Your task to perform on an android device: Open Chrome and go to settings Image 0: 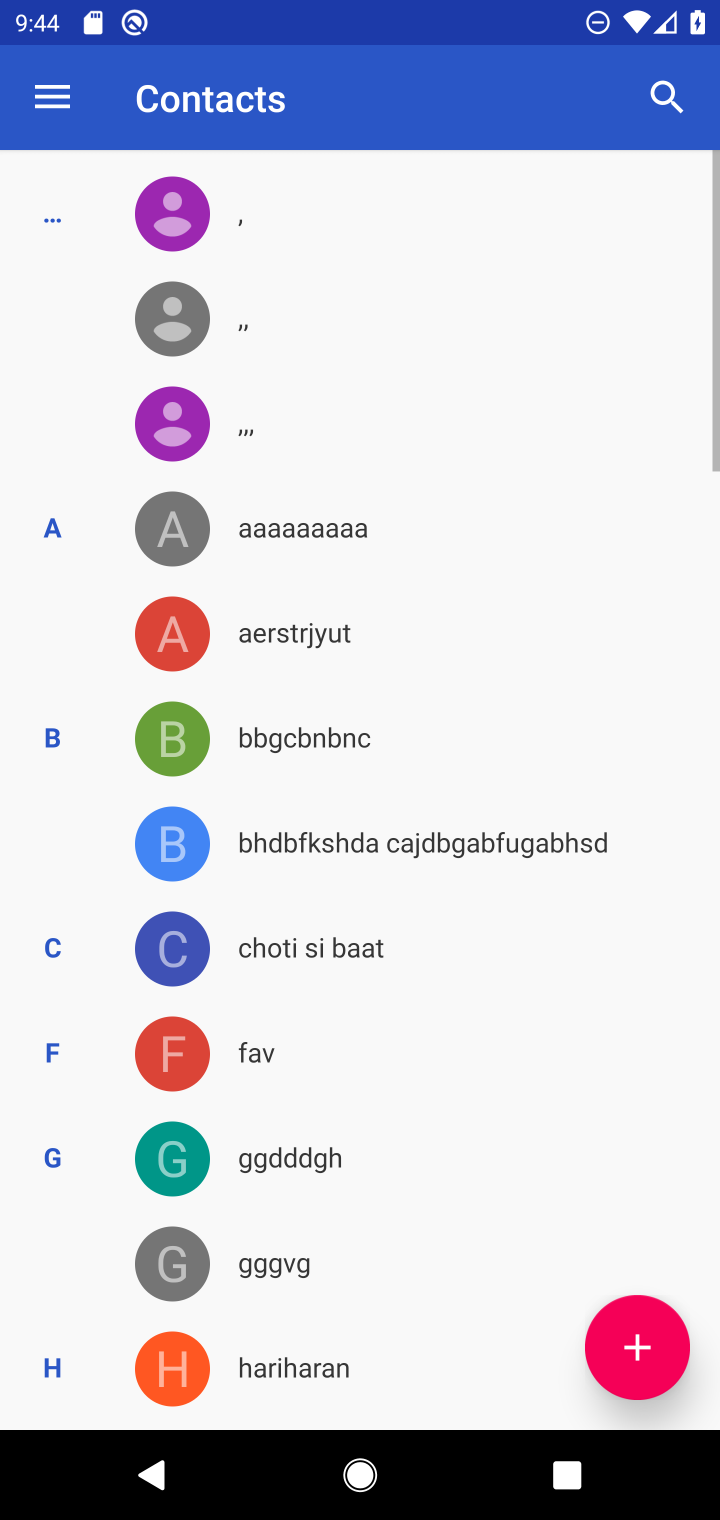
Step 0: press home button
Your task to perform on an android device: Open Chrome and go to settings Image 1: 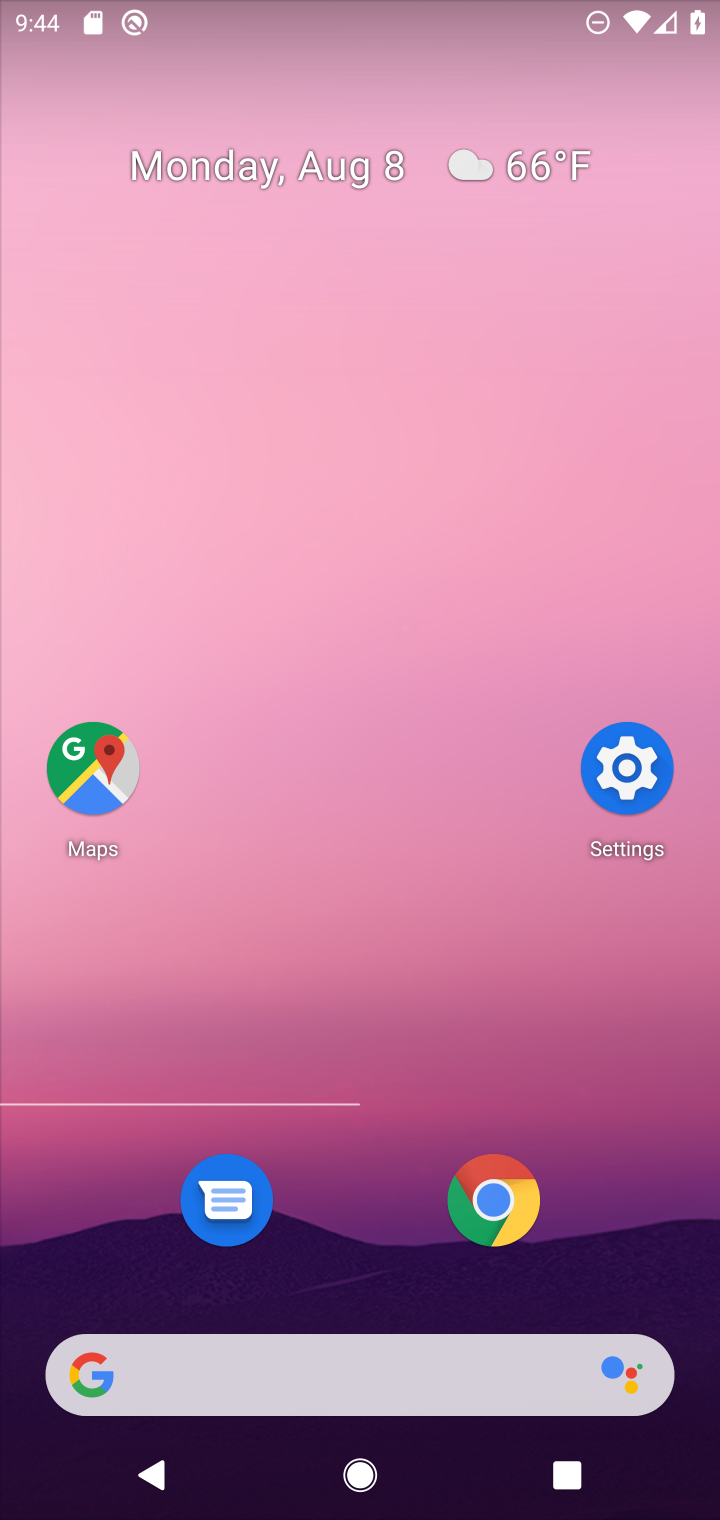
Step 1: click (499, 1191)
Your task to perform on an android device: Open Chrome and go to settings Image 2: 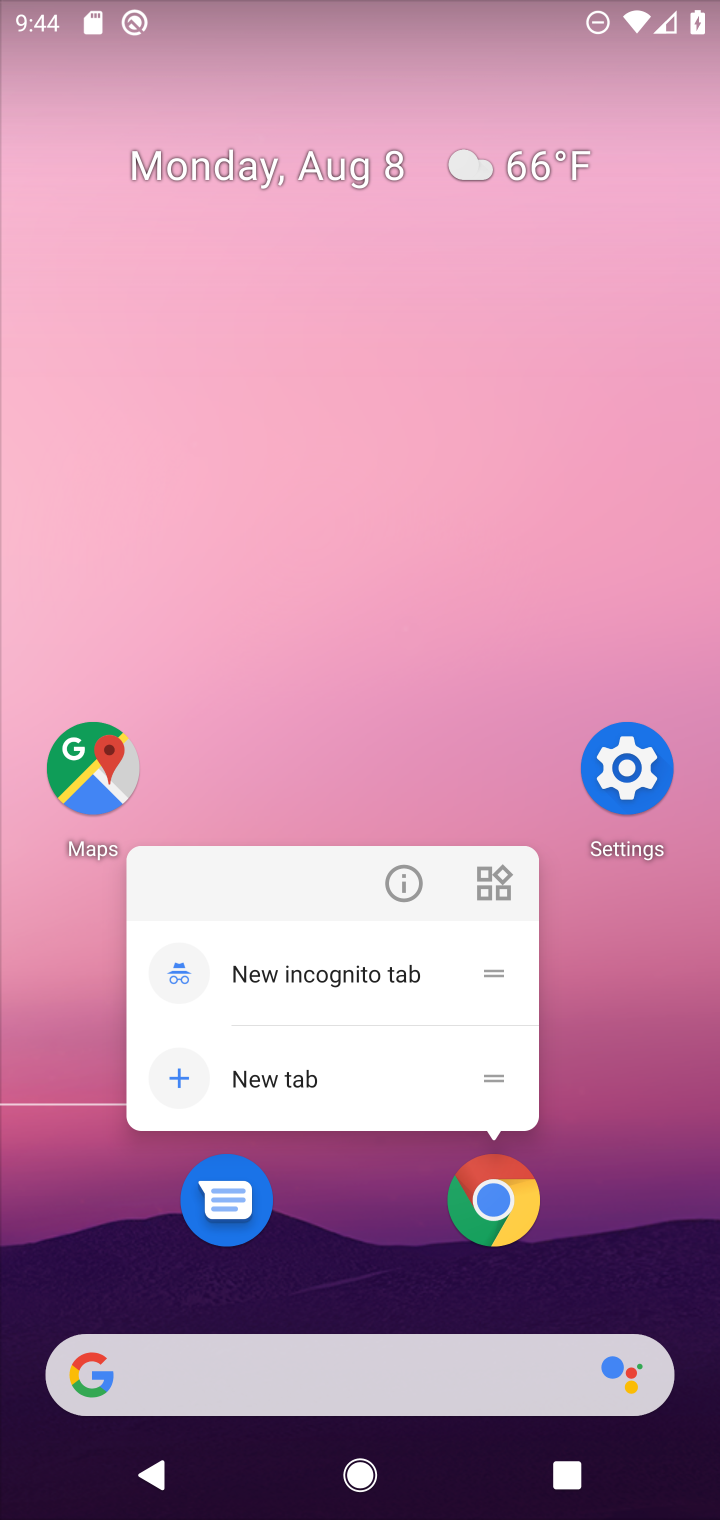
Step 2: click (481, 1212)
Your task to perform on an android device: Open Chrome and go to settings Image 3: 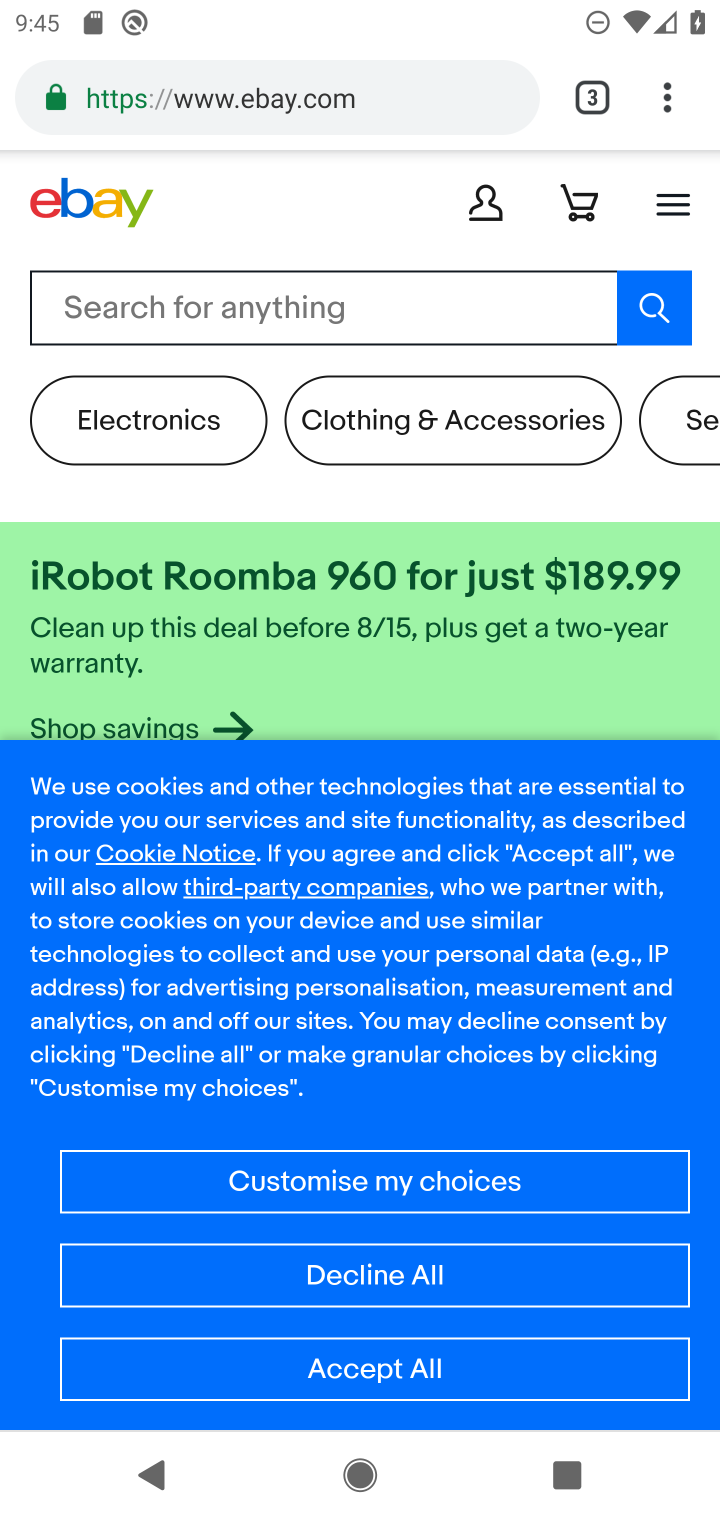
Step 3: task complete